Your task to perform on an android device: What's the weather? Image 0: 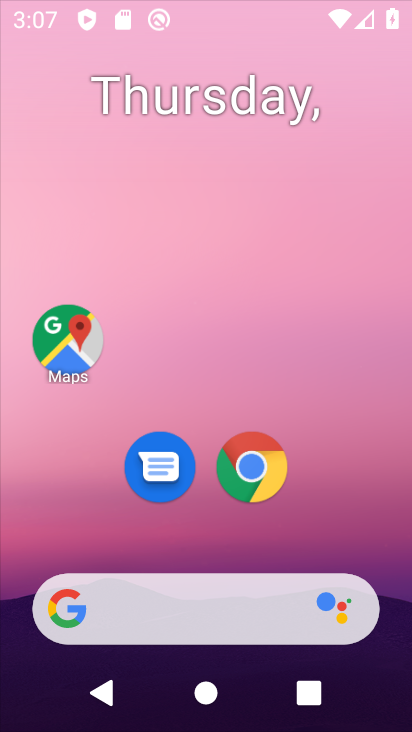
Step 0: click (252, 478)
Your task to perform on an android device: What's the weather? Image 1: 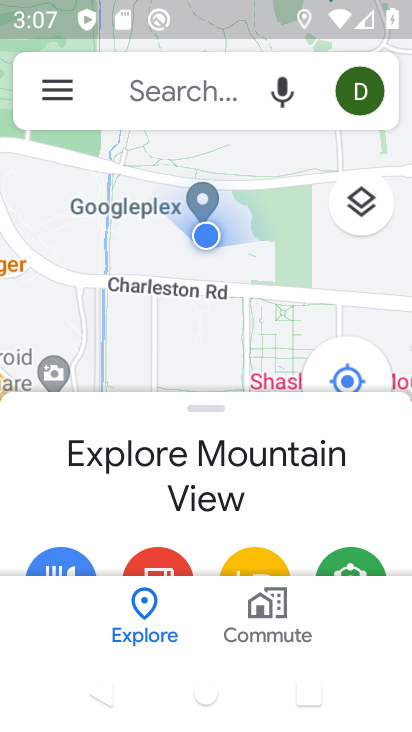
Step 1: press home button
Your task to perform on an android device: What's the weather? Image 2: 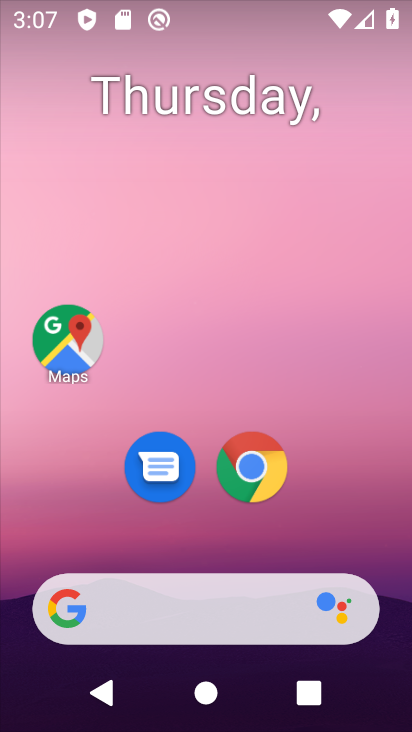
Step 2: drag from (26, 237) to (393, 233)
Your task to perform on an android device: What's the weather? Image 3: 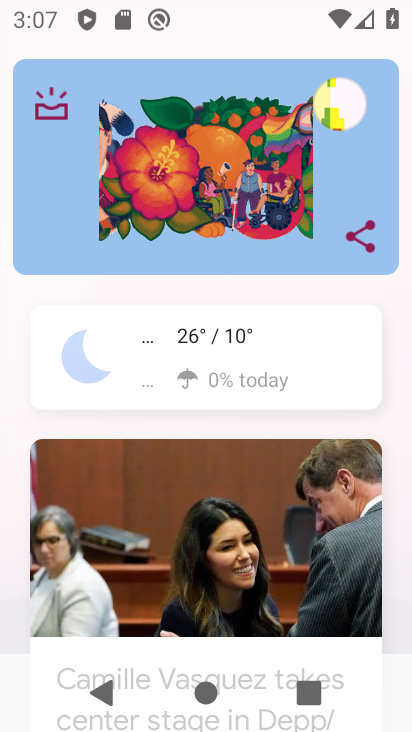
Step 3: click (49, 369)
Your task to perform on an android device: What's the weather? Image 4: 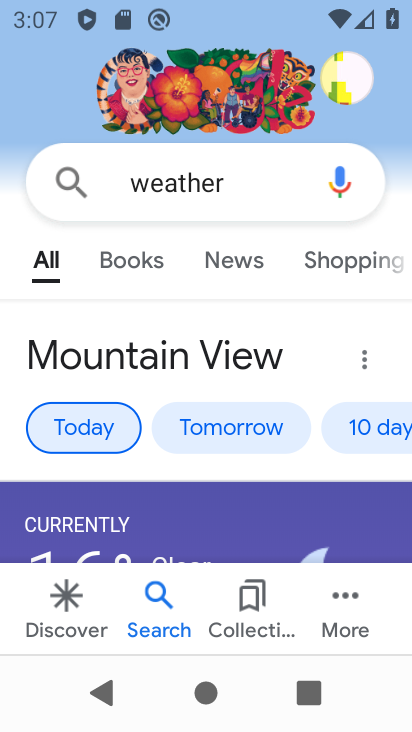
Step 4: task complete